Your task to perform on an android device: turn on location history Image 0: 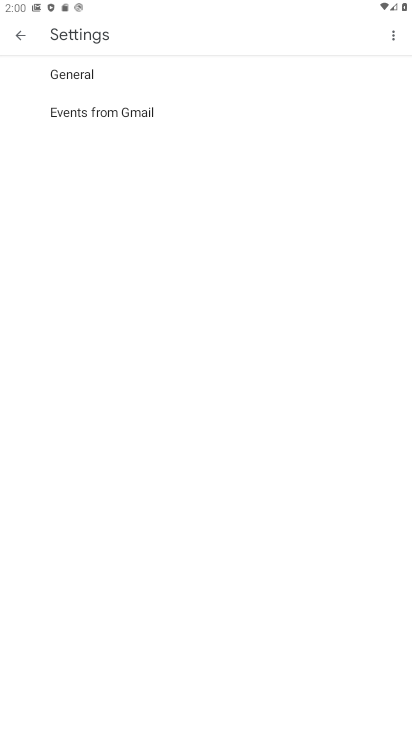
Step 0: press home button
Your task to perform on an android device: turn on location history Image 1: 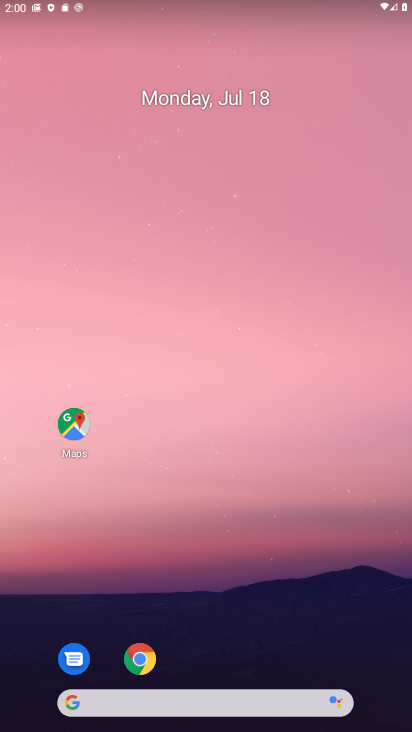
Step 1: drag from (233, 584) to (228, 164)
Your task to perform on an android device: turn on location history Image 2: 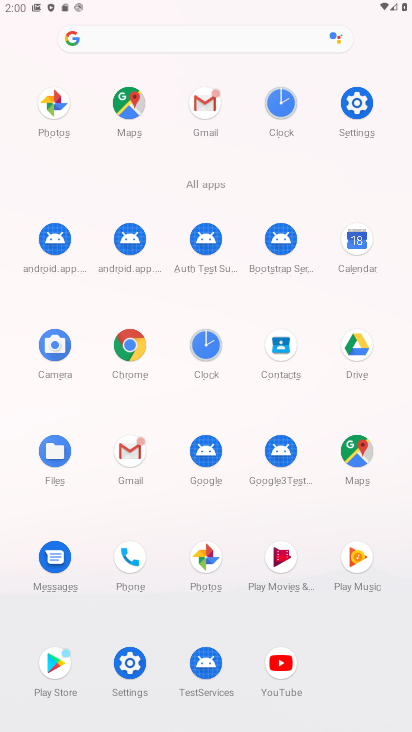
Step 2: click (346, 98)
Your task to perform on an android device: turn on location history Image 3: 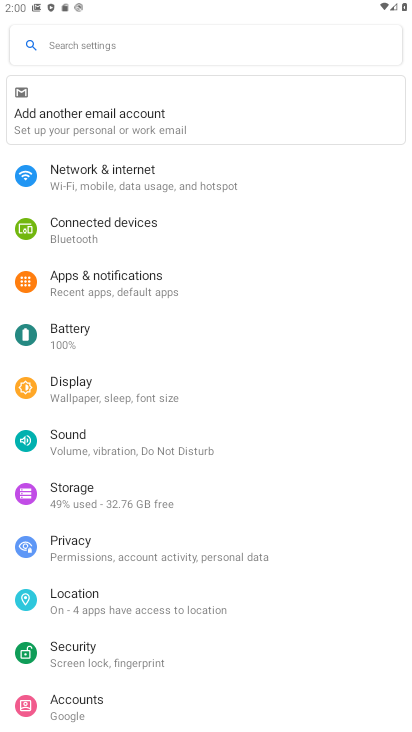
Step 3: click (92, 586)
Your task to perform on an android device: turn on location history Image 4: 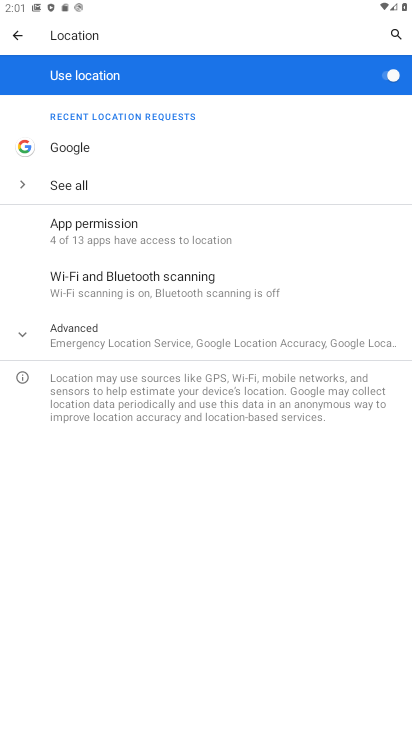
Step 4: click (112, 344)
Your task to perform on an android device: turn on location history Image 5: 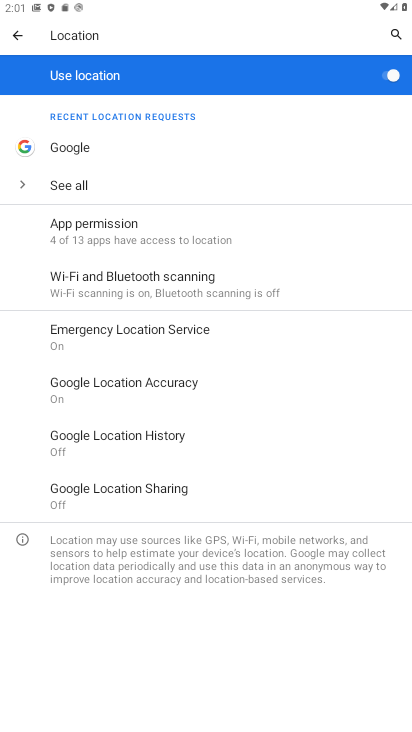
Step 5: click (181, 450)
Your task to perform on an android device: turn on location history Image 6: 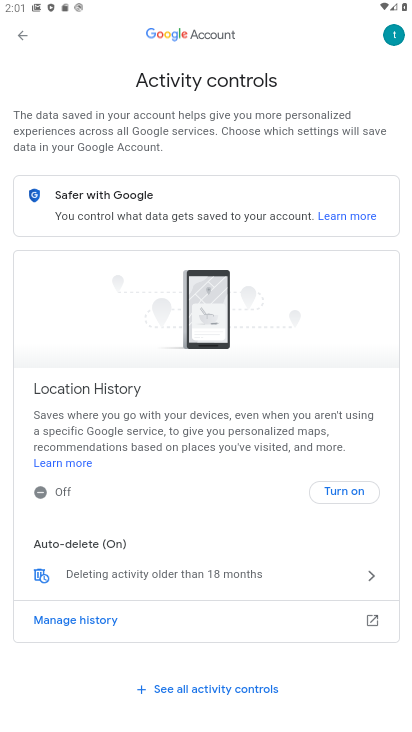
Step 6: click (363, 498)
Your task to perform on an android device: turn on location history Image 7: 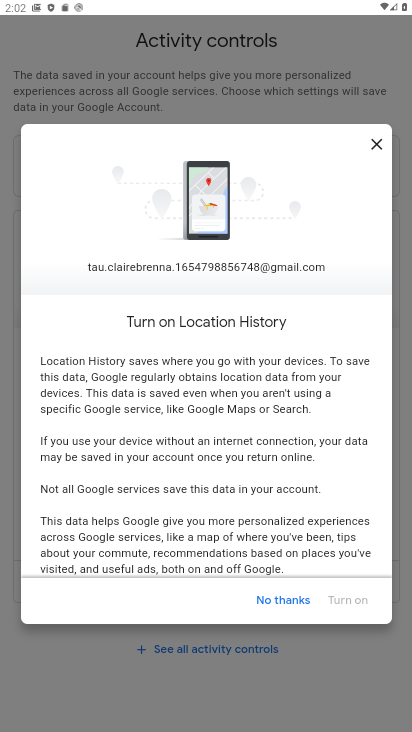
Step 7: drag from (327, 563) to (218, 0)
Your task to perform on an android device: turn on location history Image 8: 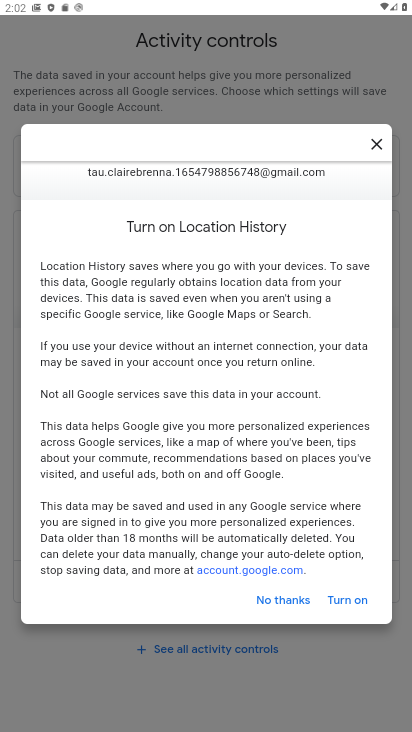
Step 8: drag from (254, 514) to (208, 46)
Your task to perform on an android device: turn on location history Image 9: 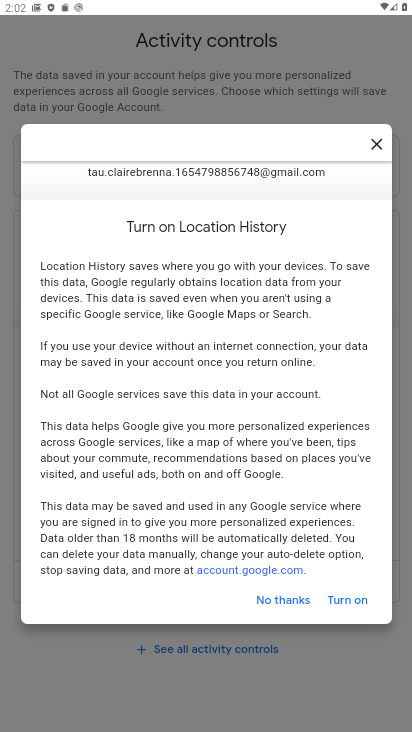
Step 9: drag from (261, 442) to (200, 172)
Your task to perform on an android device: turn on location history Image 10: 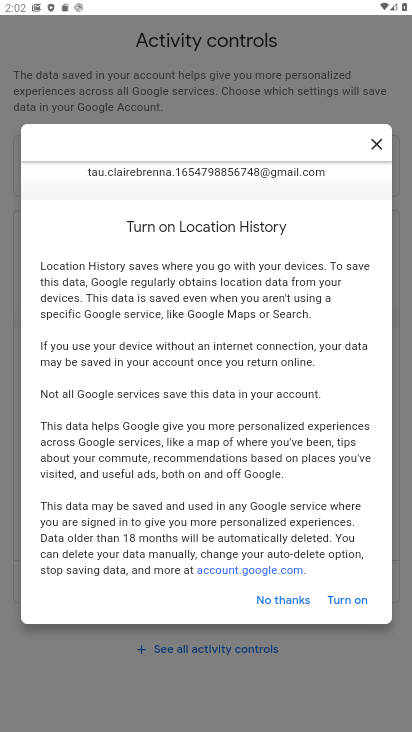
Step 10: click (360, 597)
Your task to perform on an android device: turn on location history Image 11: 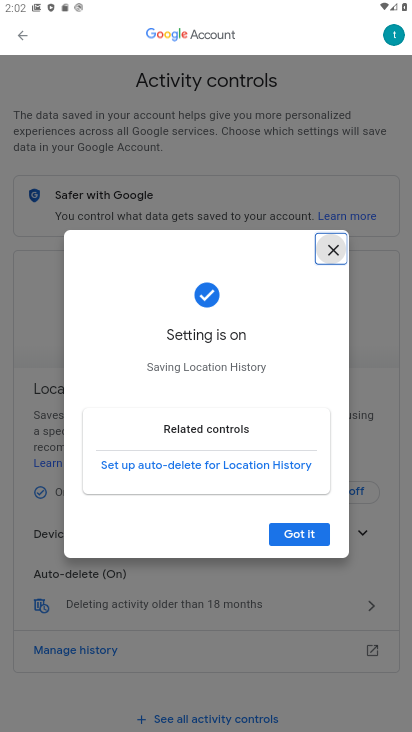
Step 11: click (297, 529)
Your task to perform on an android device: turn on location history Image 12: 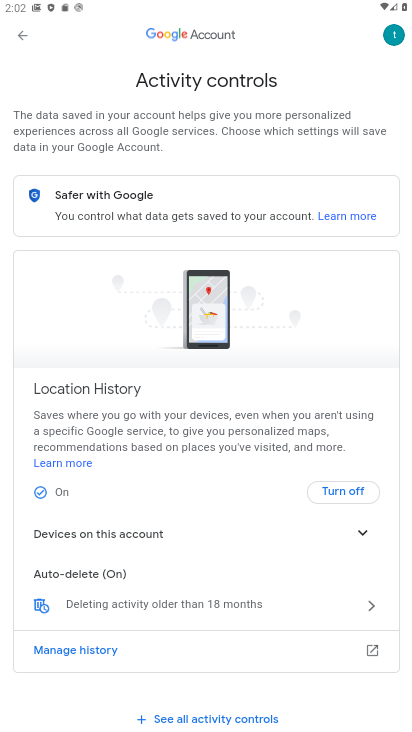
Step 12: task complete